Your task to perform on an android device: Open CNN.com Image 0: 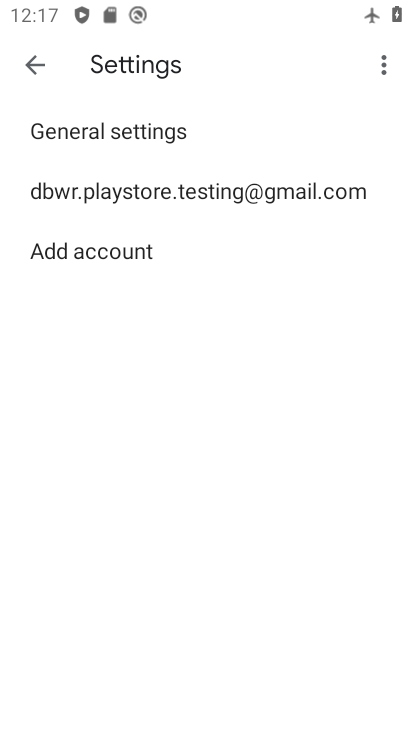
Step 0: press back button
Your task to perform on an android device: Open CNN.com Image 1: 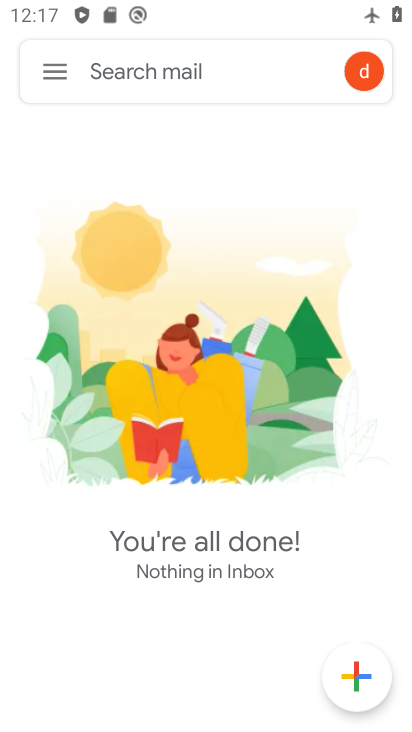
Step 1: press home button
Your task to perform on an android device: Open CNN.com Image 2: 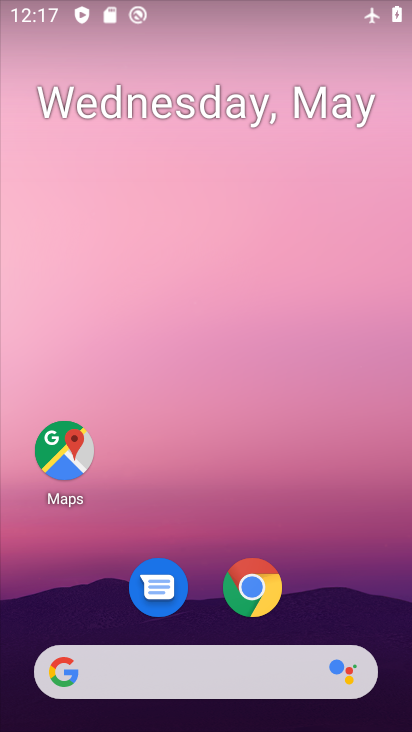
Step 2: click (198, 680)
Your task to perform on an android device: Open CNN.com Image 3: 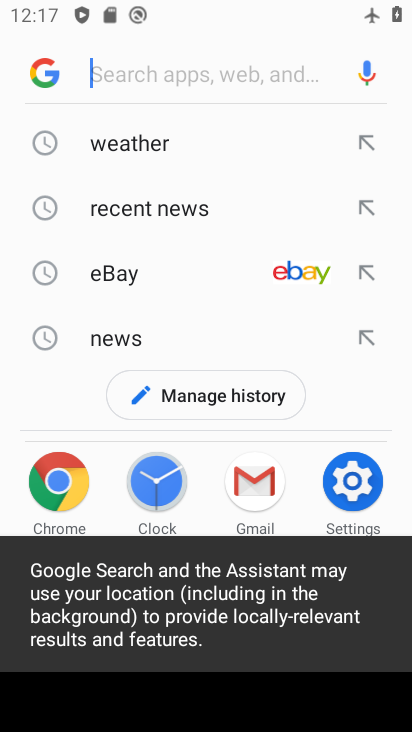
Step 3: drag from (382, 25) to (369, 702)
Your task to perform on an android device: Open CNN.com Image 4: 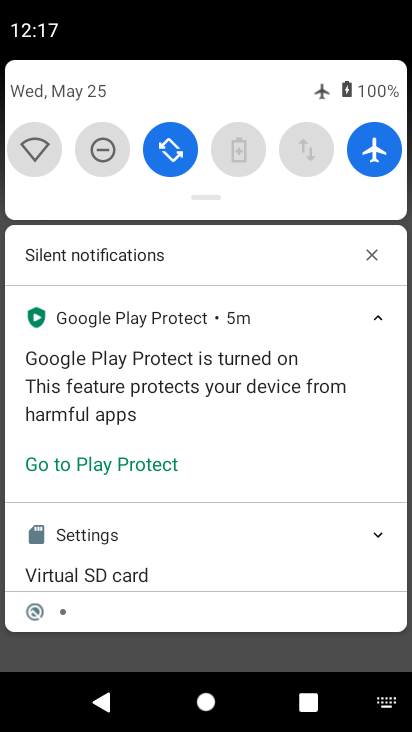
Step 4: click (370, 148)
Your task to perform on an android device: Open CNN.com Image 5: 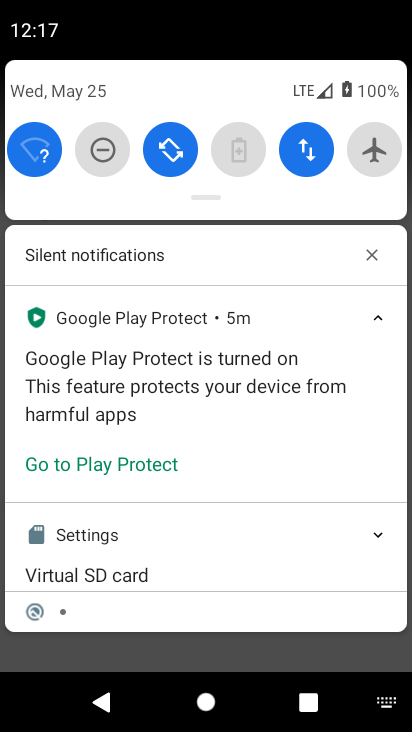
Step 5: press back button
Your task to perform on an android device: Open CNN.com Image 6: 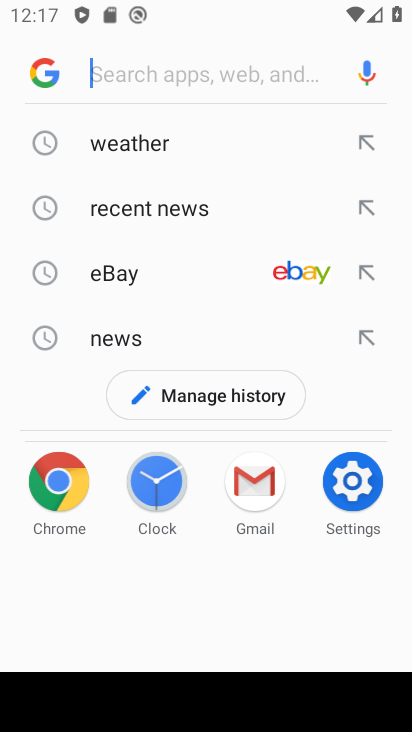
Step 6: type "CNN.com"
Your task to perform on an android device: Open CNN.com Image 7: 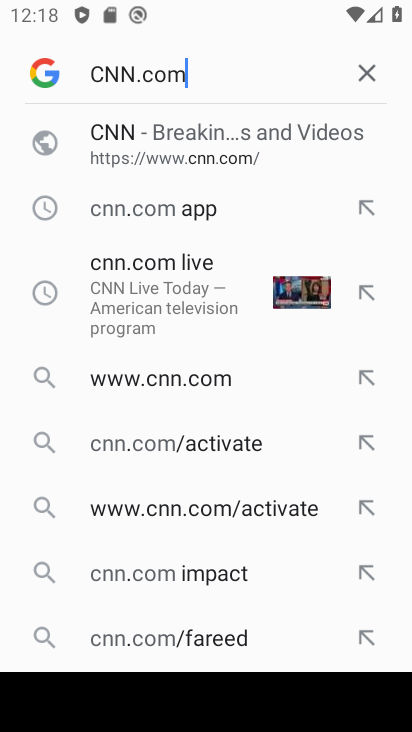
Step 7: click (151, 156)
Your task to perform on an android device: Open CNN.com Image 8: 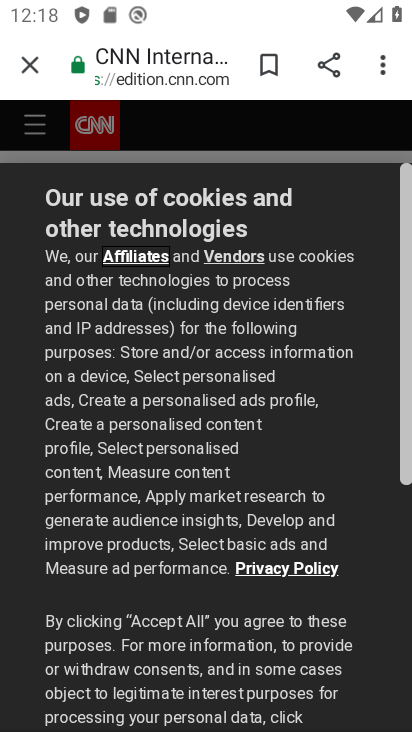
Step 8: drag from (293, 635) to (343, 345)
Your task to perform on an android device: Open CNN.com Image 9: 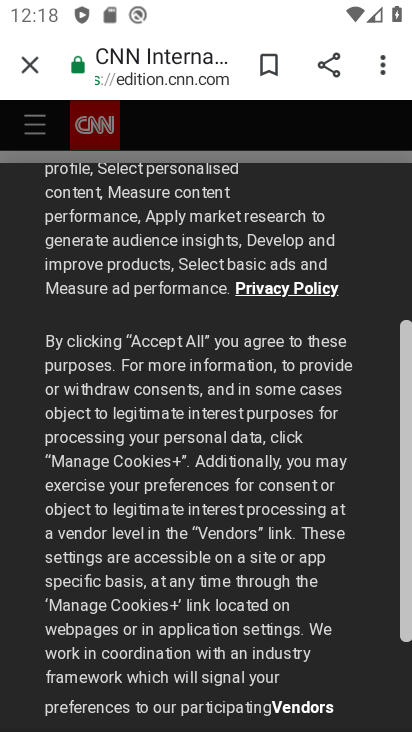
Step 9: drag from (286, 672) to (340, 316)
Your task to perform on an android device: Open CNN.com Image 10: 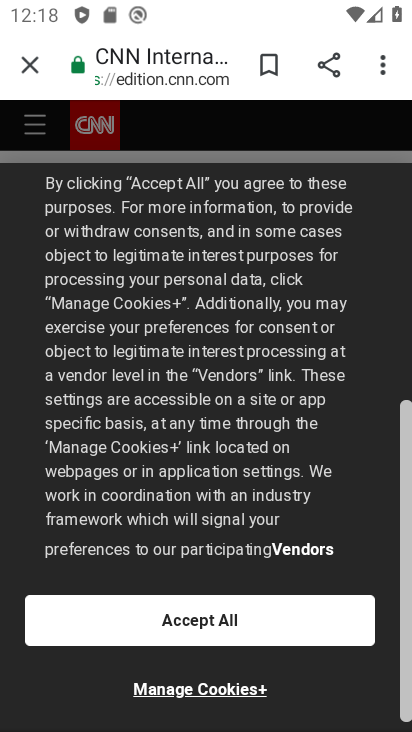
Step 10: click (196, 638)
Your task to perform on an android device: Open CNN.com Image 11: 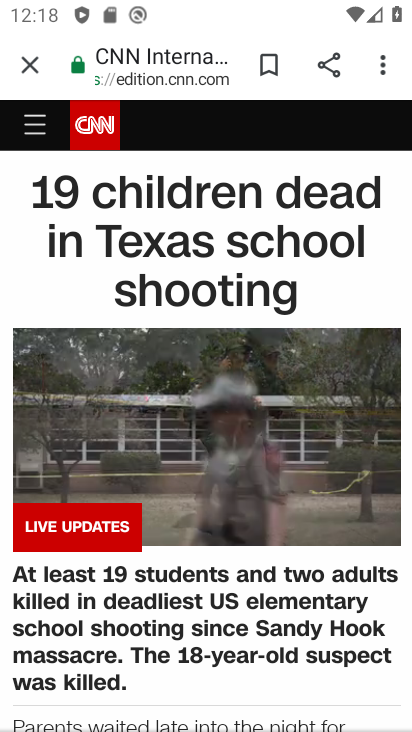
Step 11: task complete